Your task to perform on an android device: Open the stopwatch Image 0: 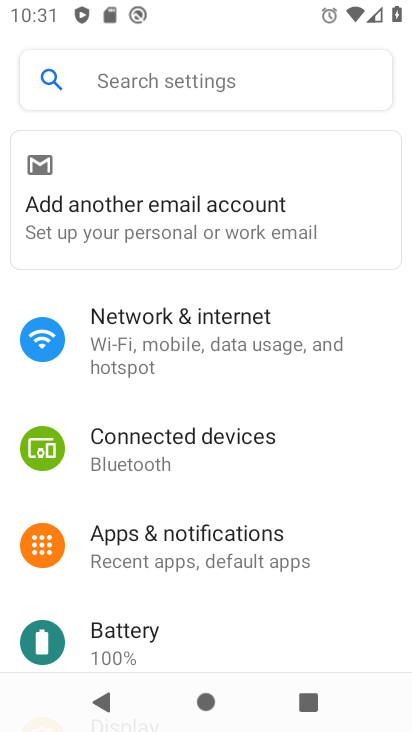
Step 0: press home button
Your task to perform on an android device: Open the stopwatch Image 1: 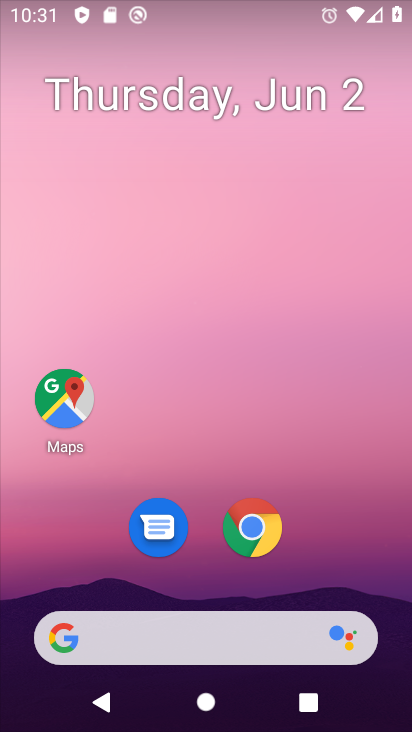
Step 1: drag from (212, 639) to (177, 33)
Your task to perform on an android device: Open the stopwatch Image 2: 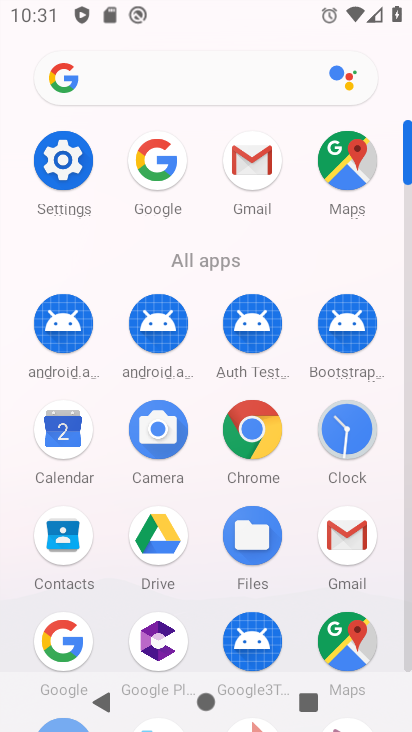
Step 2: click (343, 420)
Your task to perform on an android device: Open the stopwatch Image 3: 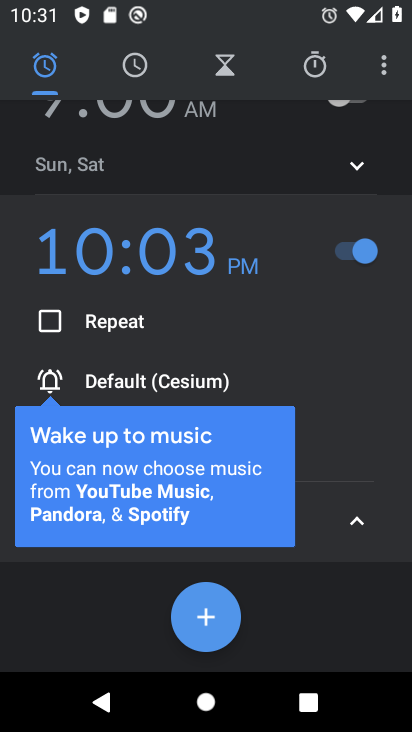
Step 3: click (307, 74)
Your task to perform on an android device: Open the stopwatch Image 4: 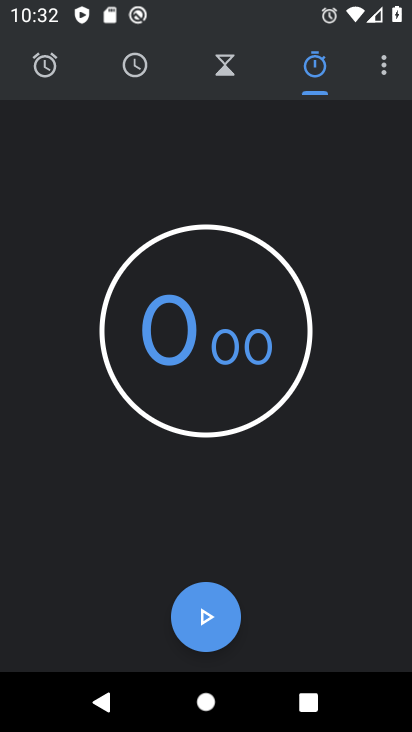
Step 4: task complete